Your task to perform on an android device: Turn off the flashlight Image 0: 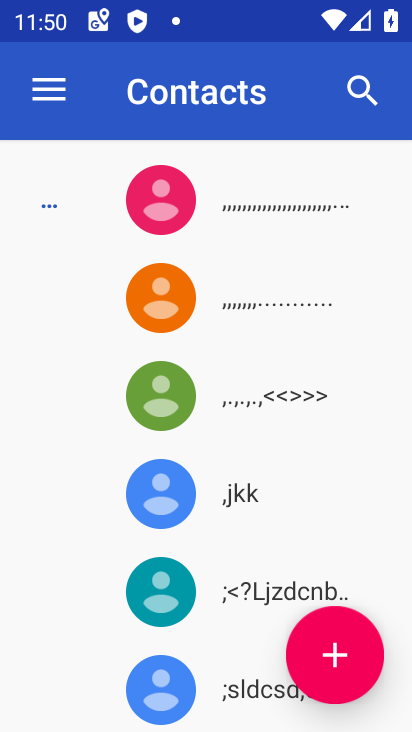
Step 0: press home button
Your task to perform on an android device: Turn off the flashlight Image 1: 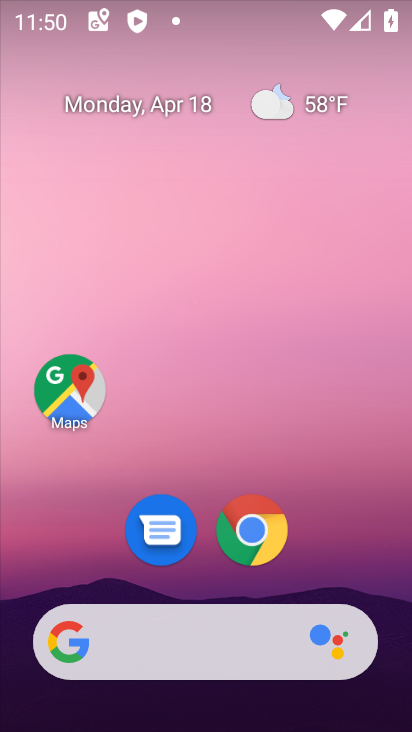
Step 1: task complete